Your task to perform on an android device: Go to battery settings Image 0: 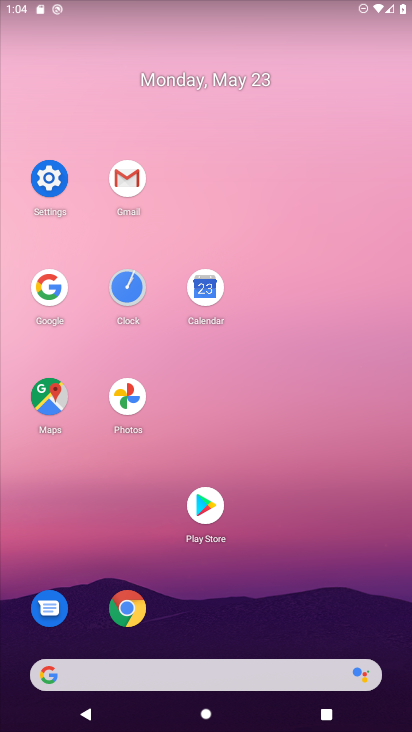
Step 0: click (57, 196)
Your task to perform on an android device: Go to battery settings Image 1: 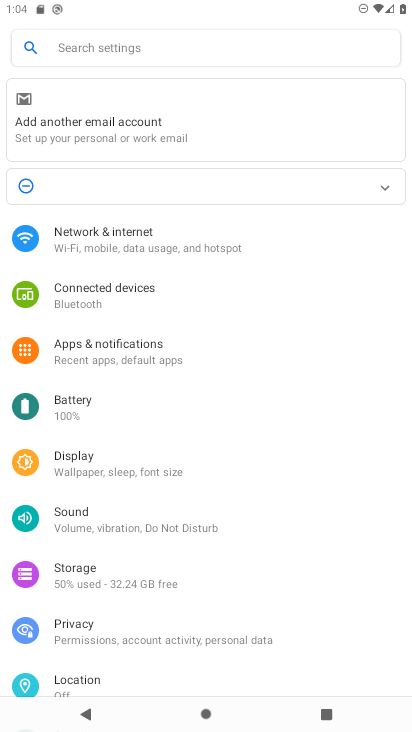
Step 1: click (115, 412)
Your task to perform on an android device: Go to battery settings Image 2: 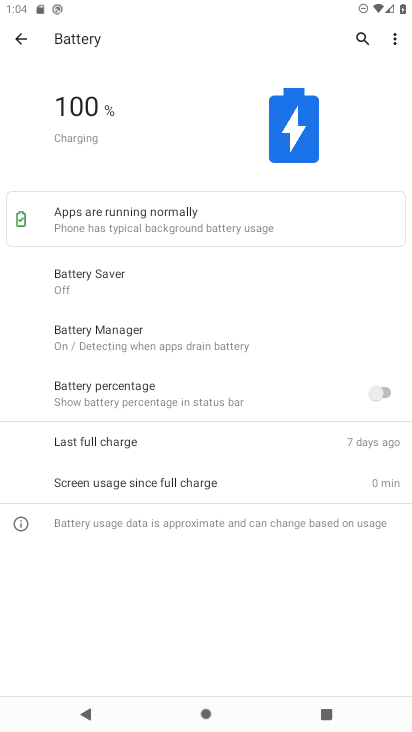
Step 2: task complete